Your task to perform on an android device: Go to Wikipedia Image 0: 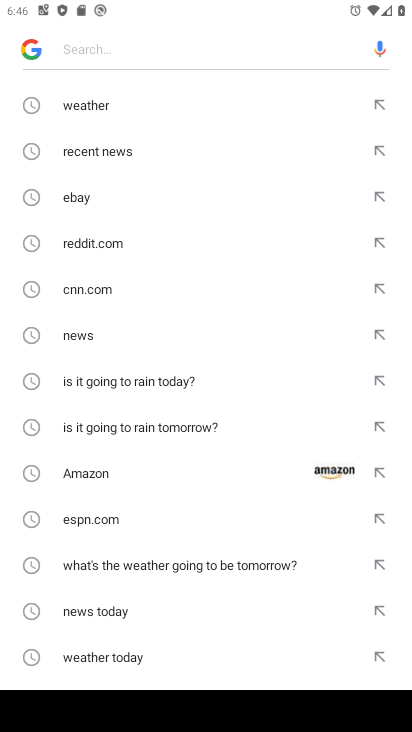
Step 0: press home button
Your task to perform on an android device: Go to Wikipedia Image 1: 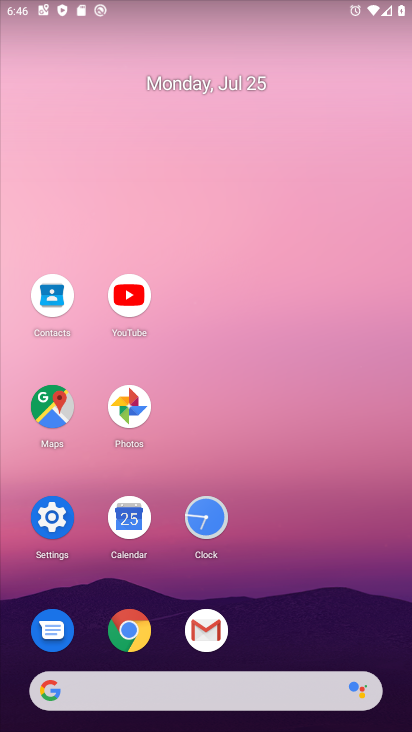
Step 1: click (124, 629)
Your task to perform on an android device: Go to Wikipedia Image 2: 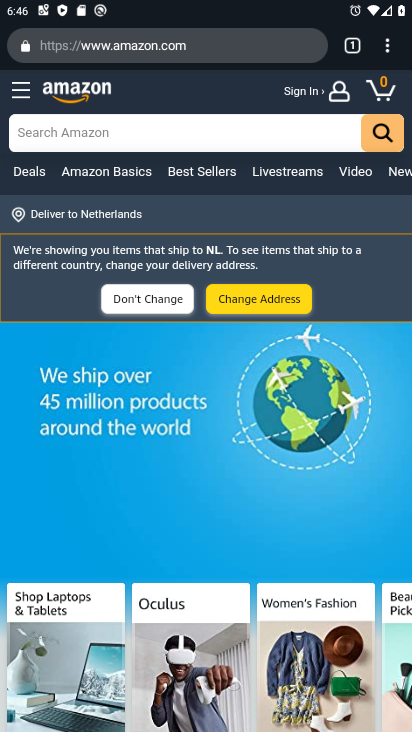
Step 2: click (395, 48)
Your task to perform on an android device: Go to Wikipedia Image 3: 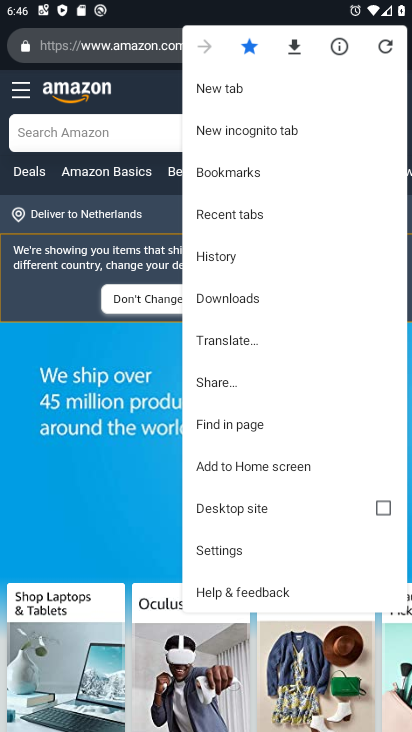
Step 3: click (212, 95)
Your task to perform on an android device: Go to Wikipedia Image 4: 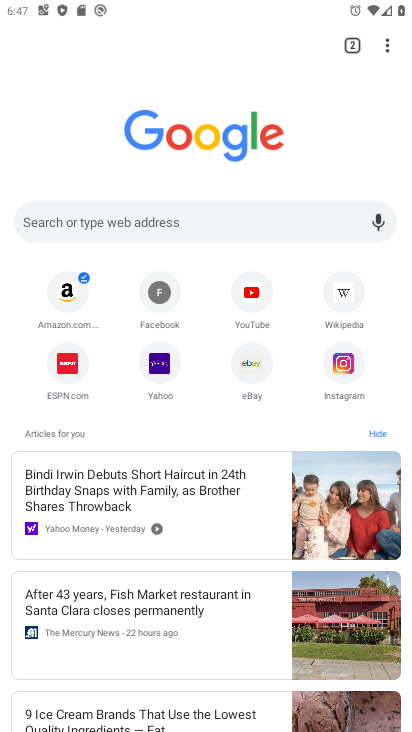
Step 4: click (348, 291)
Your task to perform on an android device: Go to Wikipedia Image 5: 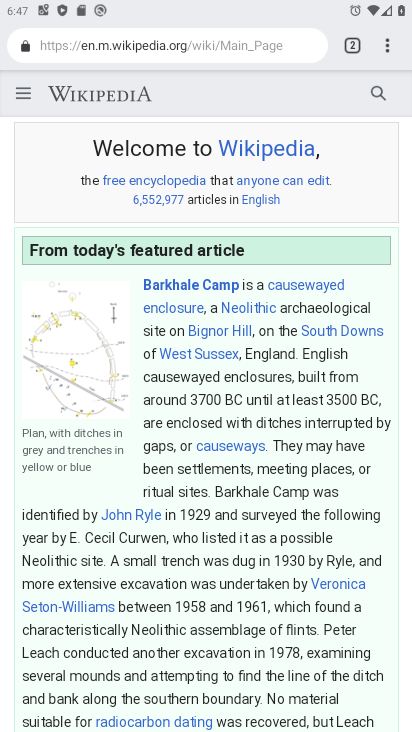
Step 5: task complete